Your task to perform on an android device: Open ESPN.com Image 0: 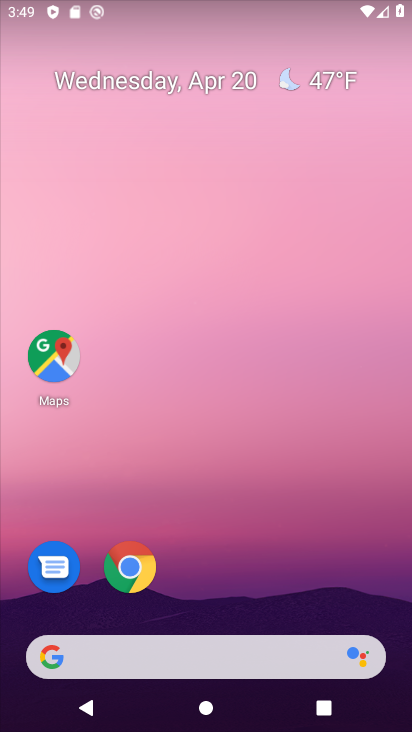
Step 0: click (122, 578)
Your task to perform on an android device: Open ESPN.com Image 1: 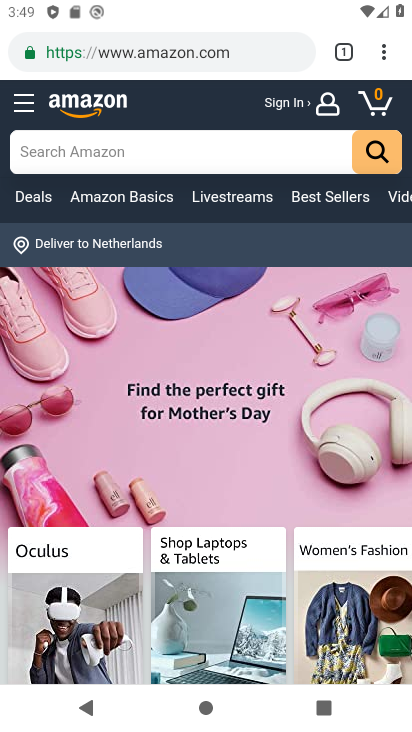
Step 1: click (345, 61)
Your task to perform on an android device: Open ESPN.com Image 2: 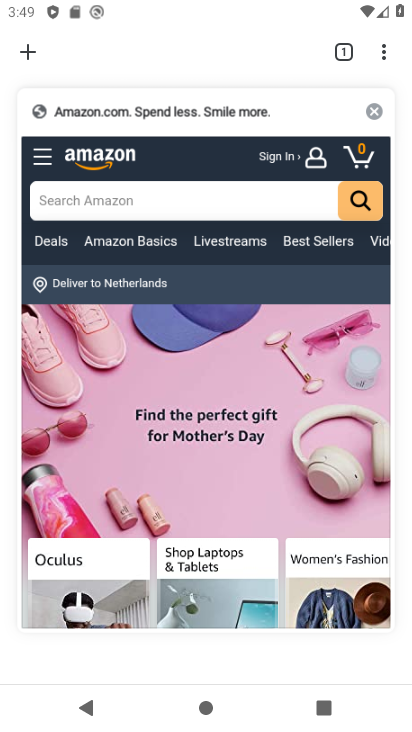
Step 2: click (38, 61)
Your task to perform on an android device: Open ESPN.com Image 3: 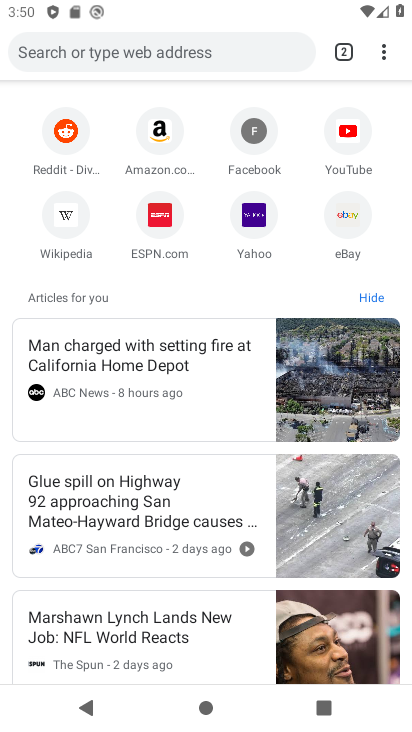
Step 3: type "espn.com"
Your task to perform on an android device: Open ESPN.com Image 4: 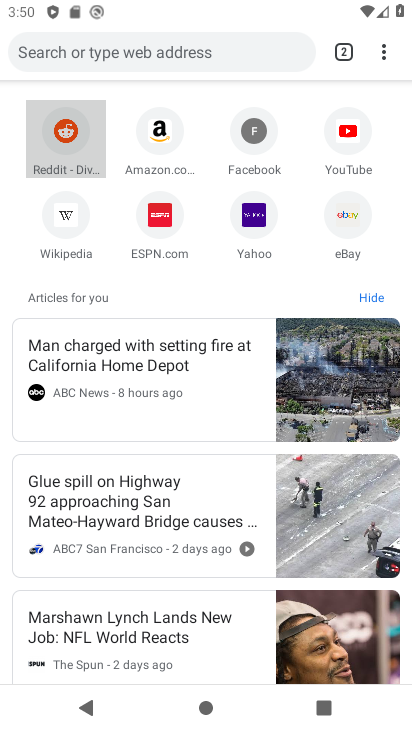
Step 4: click (171, 201)
Your task to perform on an android device: Open ESPN.com Image 5: 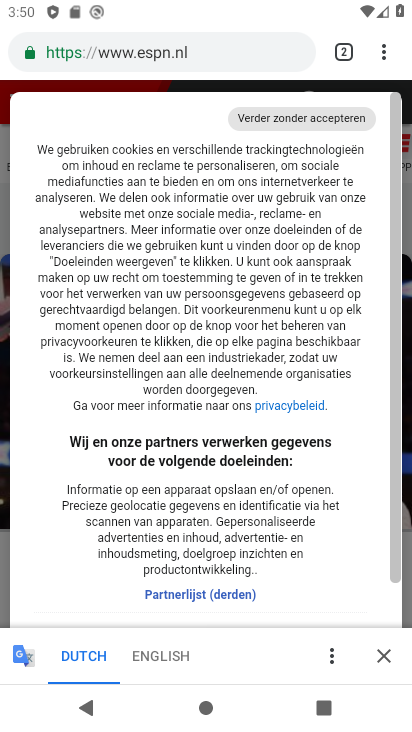
Step 5: task complete